Your task to perform on an android device: choose inbox layout in the gmail app Image 0: 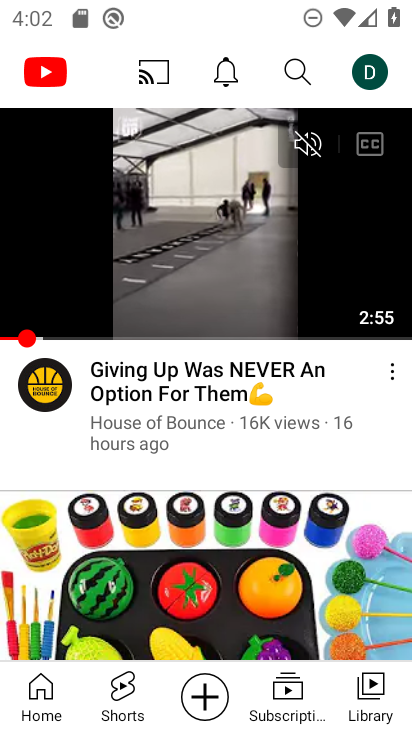
Step 0: press home button
Your task to perform on an android device: choose inbox layout in the gmail app Image 1: 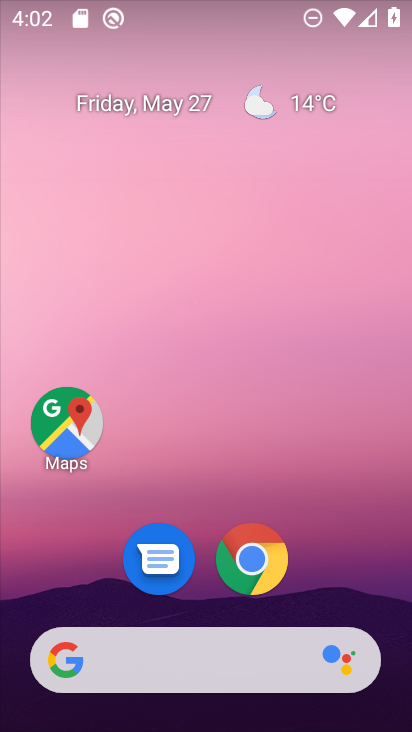
Step 1: drag from (301, 648) to (392, 34)
Your task to perform on an android device: choose inbox layout in the gmail app Image 2: 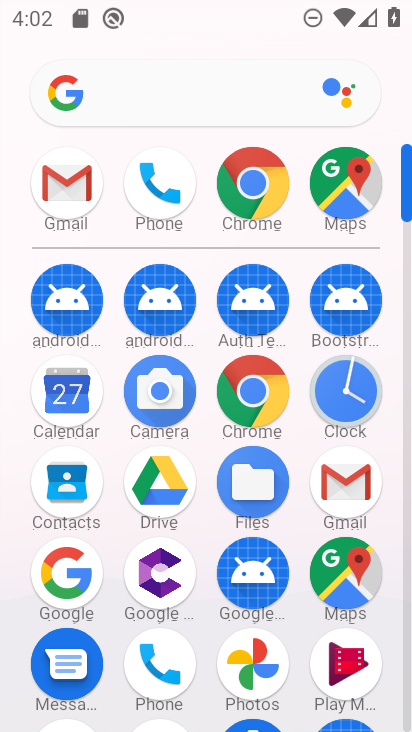
Step 2: click (363, 479)
Your task to perform on an android device: choose inbox layout in the gmail app Image 3: 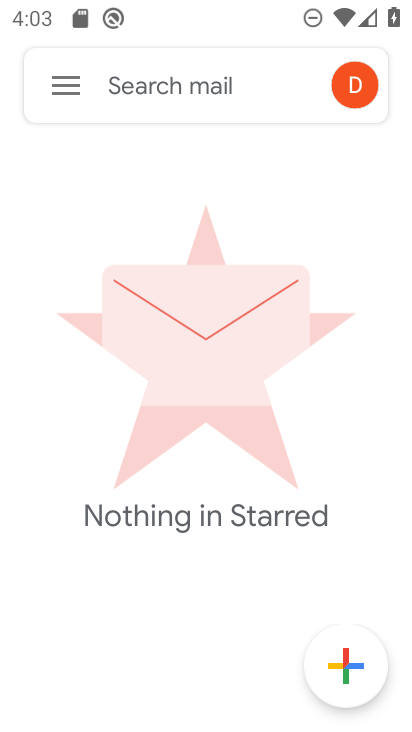
Step 3: click (56, 89)
Your task to perform on an android device: choose inbox layout in the gmail app Image 4: 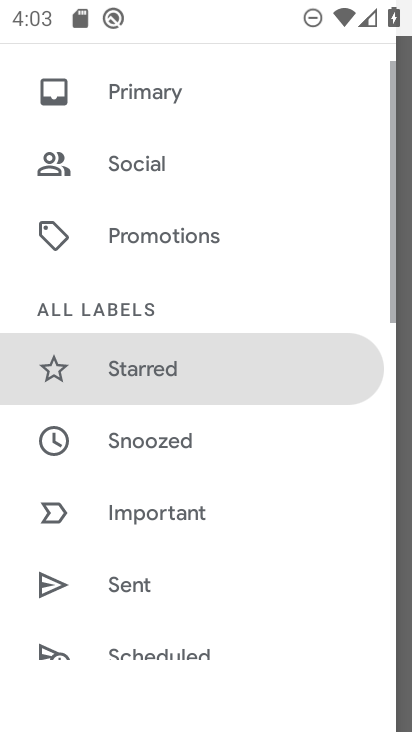
Step 4: drag from (146, 645) to (211, 15)
Your task to perform on an android device: choose inbox layout in the gmail app Image 5: 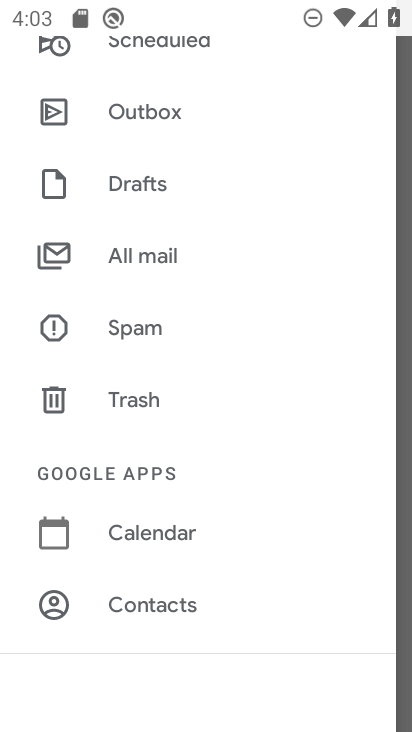
Step 5: drag from (161, 566) to (232, 75)
Your task to perform on an android device: choose inbox layout in the gmail app Image 6: 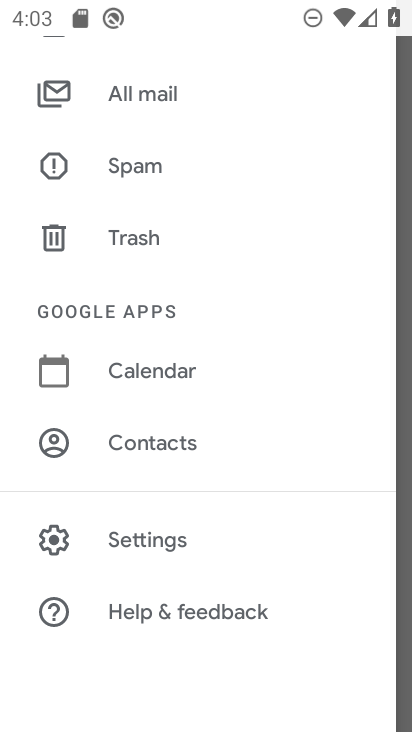
Step 6: click (217, 528)
Your task to perform on an android device: choose inbox layout in the gmail app Image 7: 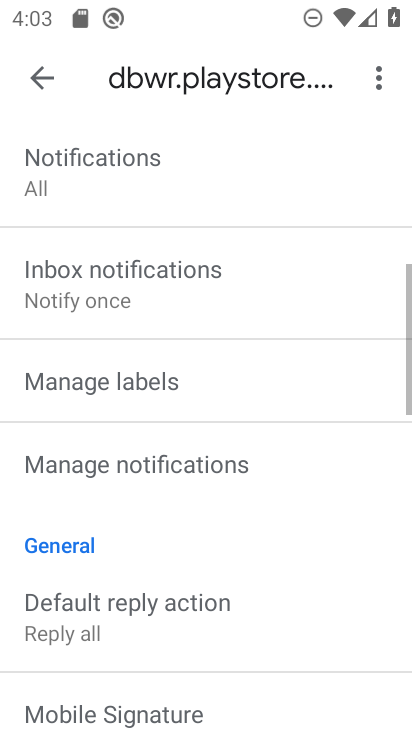
Step 7: drag from (198, 236) to (235, 714)
Your task to perform on an android device: choose inbox layout in the gmail app Image 8: 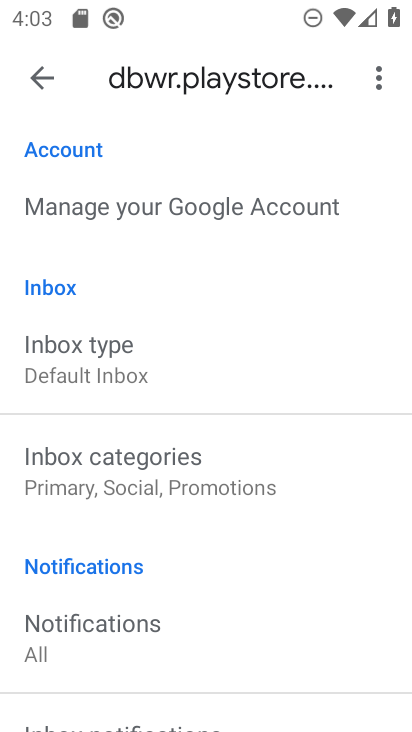
Step 8: click (241, 380)
Your task to perform on an android device: choose inbox layout in the gmail app Image 9: 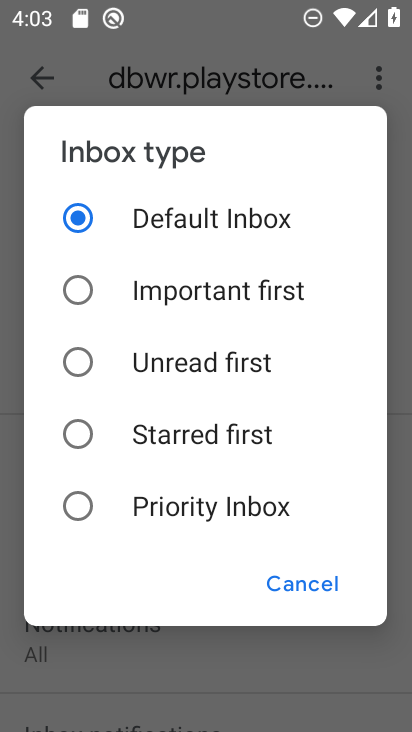
Step 9: click (70, 513)
Your task to perform on an android device: choose inbox layout in the gmail app Image 10: 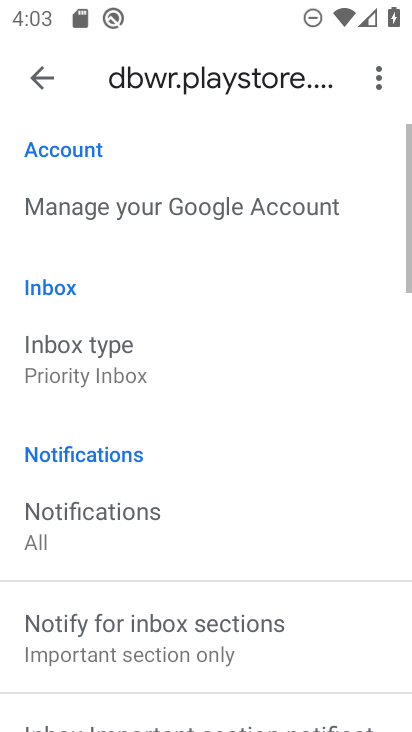
Step 10: task complete